Your task to perform on an android device: turn on showing notifications on the lock screen Image 0: 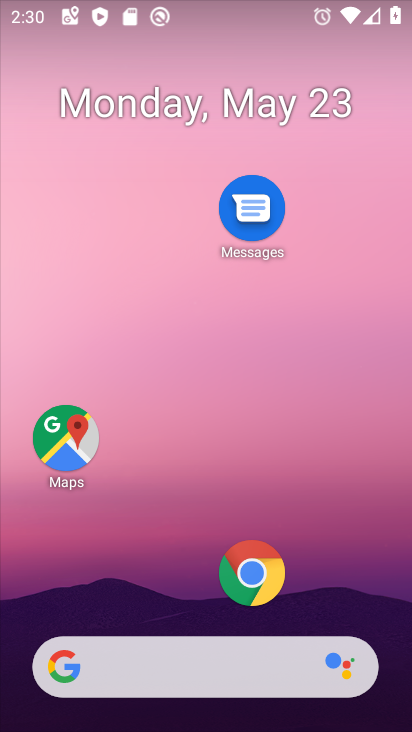
Step 0: drag from (335, 649) to (341, 4)
Your task to perform on an android device: turn on showing notifications on the lock screen Image 1: 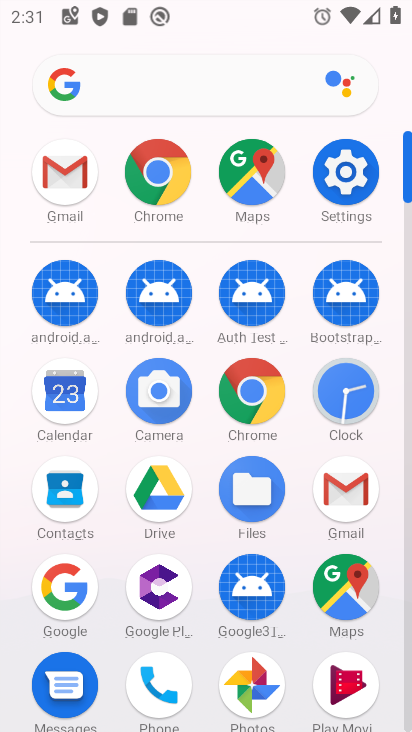
Step 1: click (342, 180)
Your task to perform on an android device: turn on showing notifications on the lock screen Image 2: 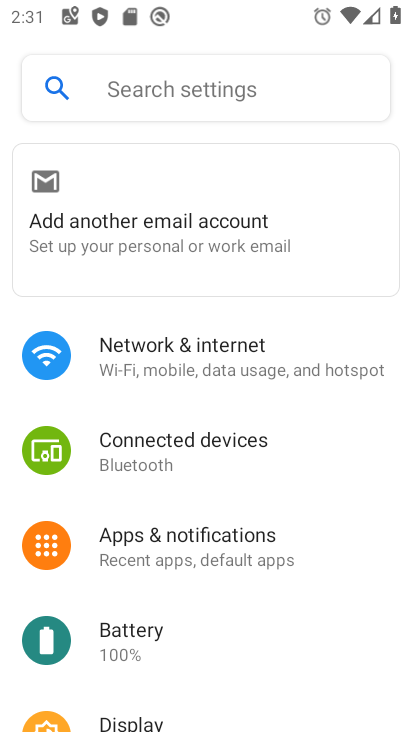
Step 2: click (244, 549)
Your task to perform on an android device: turn on showing notifications on the lock screen Image 3: 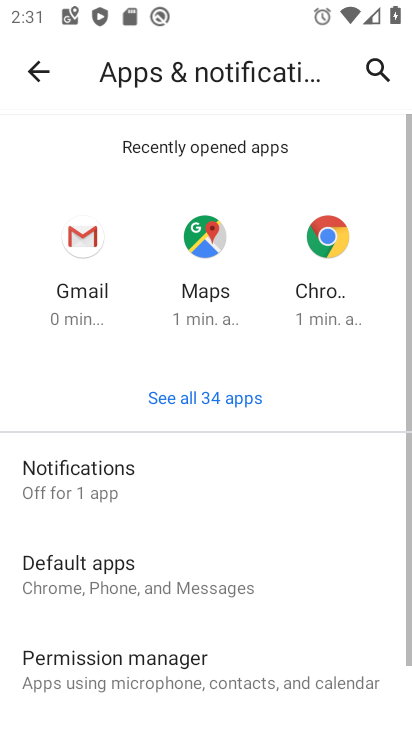
Step 3: click (213, 498)
Your task to perform on an android device: turn on showing notifications on the lock screen Image 4: 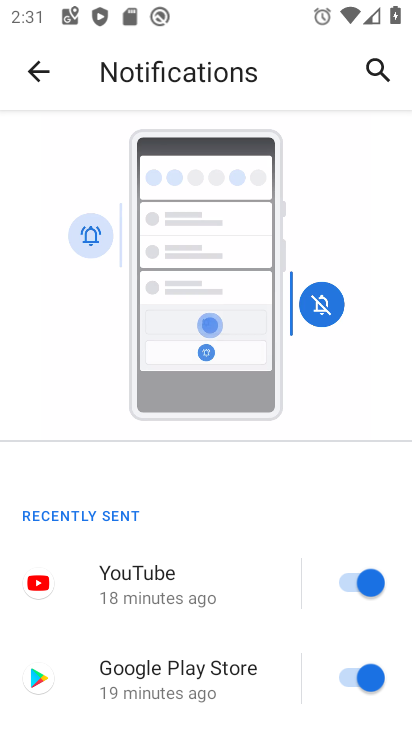
Step 4: drag from (261, 701) to (300, 10)
Your task to perform on an android device: turn on showing notifications on the lock screen Image 5: 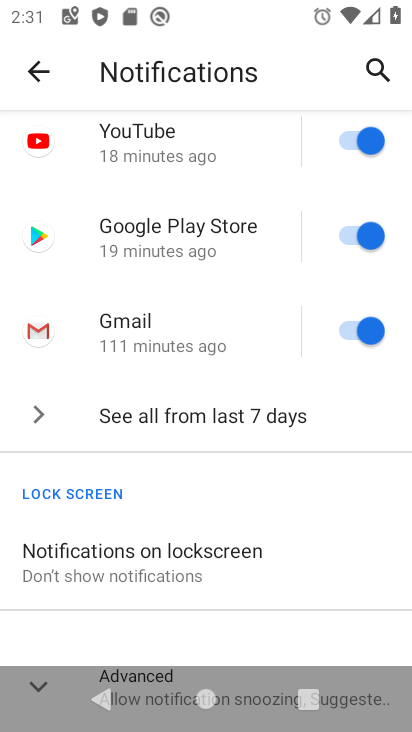
Step 5: click (193, 556)
Your task to perform on an android device: turn on showing notifications on the lock screen Image 6: 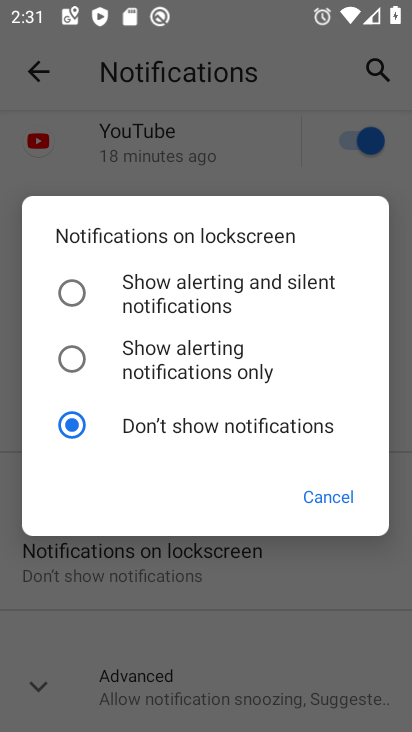
Step 6: click (64, 286)
Your task to perform on an android device: turn on showing notifications on the lock screen Image 7: 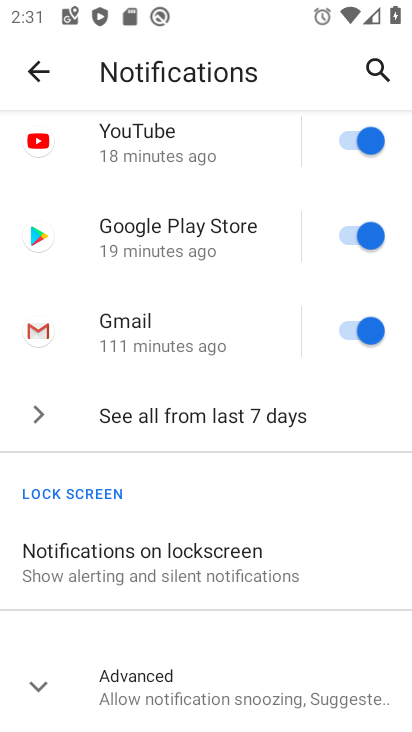
Step 7: task complete